Your task to perform on an android device: change keyboard looks Image 0: 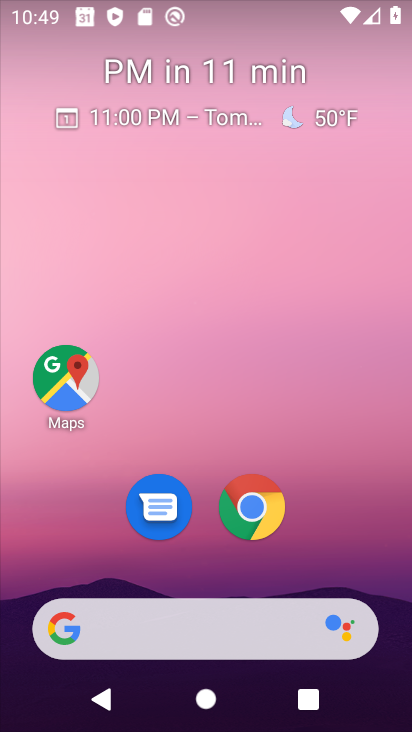
Step 0: drag from (295, 547) to (411, 81)
Your task to perform on an android device: change keyboard looks Image 1: 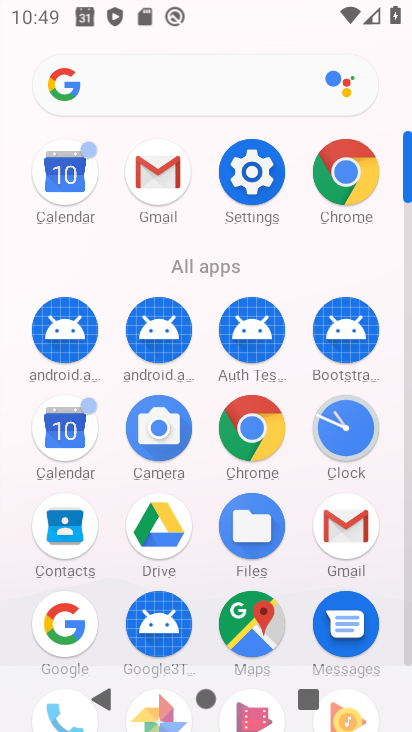
Step 1: click (262, 163)
Your task to perform on an android device: change keyboard looks Image 2: 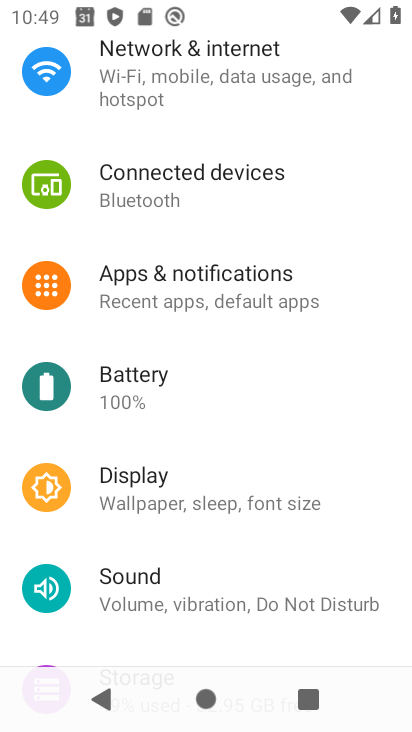
Step 2: drag from (208, 577) to (280, 161)
Your task to perform on an android device: change keyboard looks Image 3: 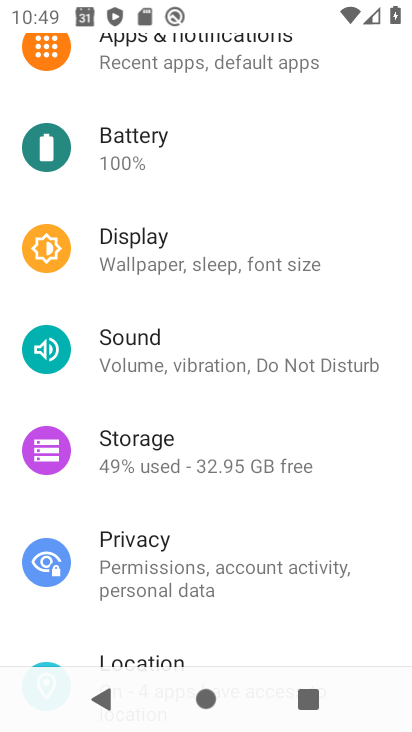
Step 3: drag from (217, 535) to (279, 135)
Your task to perform on an android device: change keyboard looks Image 4: 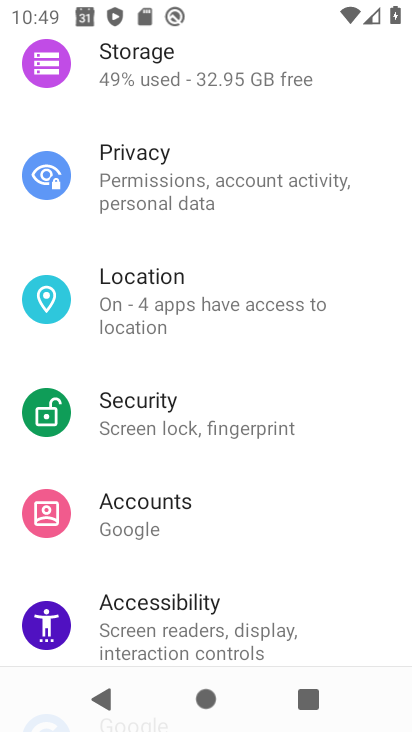
Step 4: drag from (218, 537) to (319, 174)
Your task to perform on an android device: change keyboard looks Image 5: 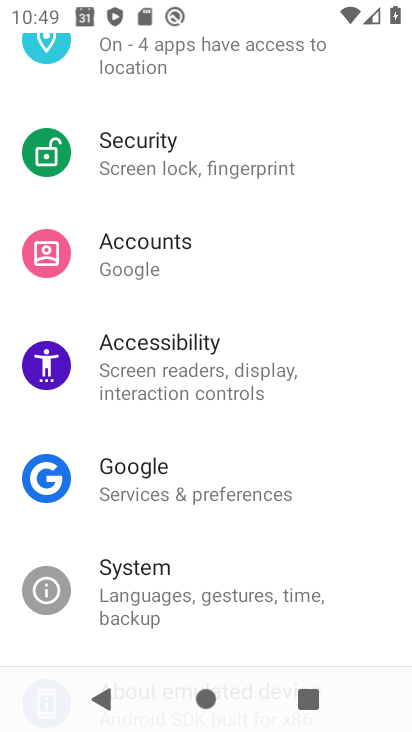
Step 5: click (202, 579)
Your task to perform on an android device: change keyboard looks Image 6: 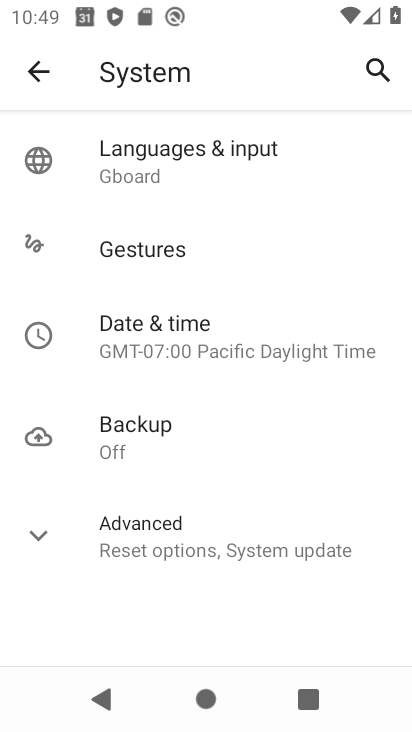
Step 6: click (227, 150)
Your task to perform on an android device: change keyboard looks Image 7: 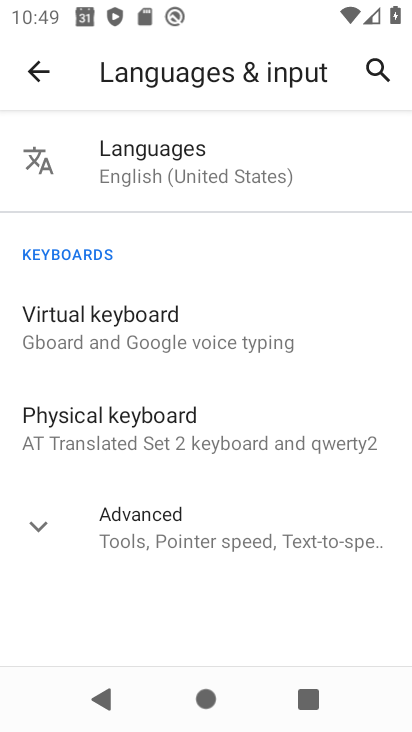
Step 7: click (192, 315)
Your task to perform on an android device: change keyboard looks Image 8: 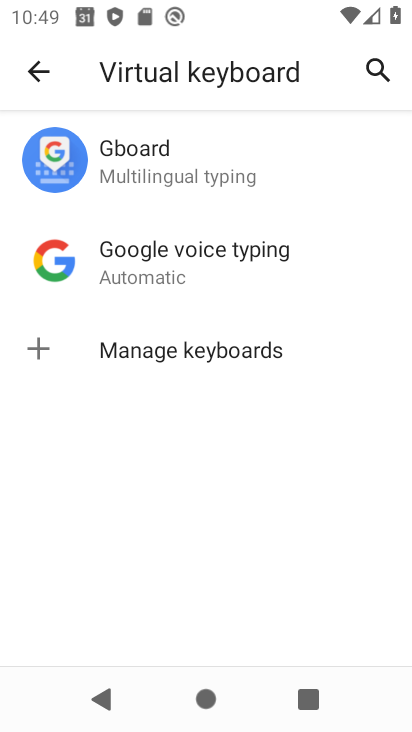
Step 8: click (180, 170)
Your task to perform on an android device: change keyboard looks Image 9: 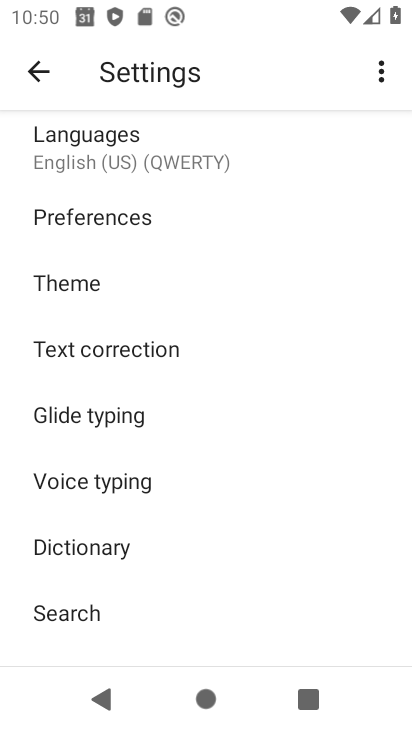
Step 9: click (108, 279)
Your task to perform on an android device: change keyboard looks Image 10: 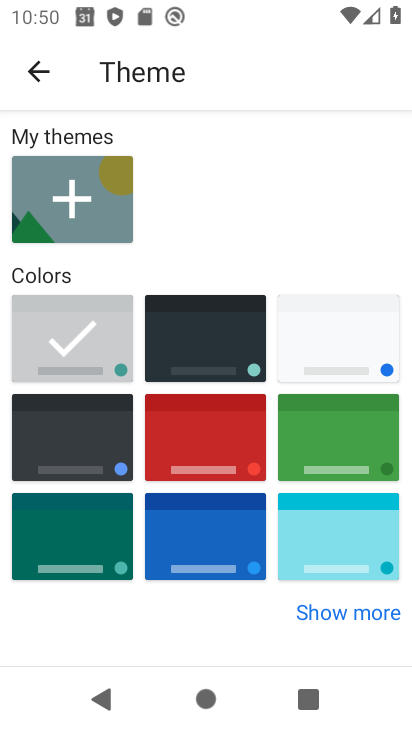
Step 10: click (252, 365)
Your task to perform on an android device: change keyboard looks Image 11: 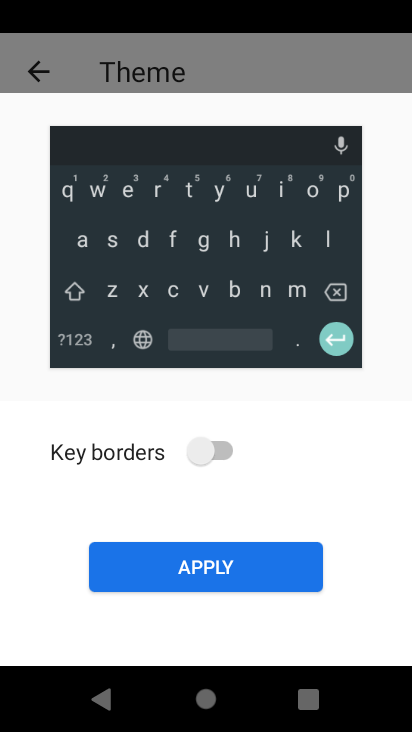
Step 11: click (195, 448)
Your task to perform on an android device: change keyboard looks Image 12: 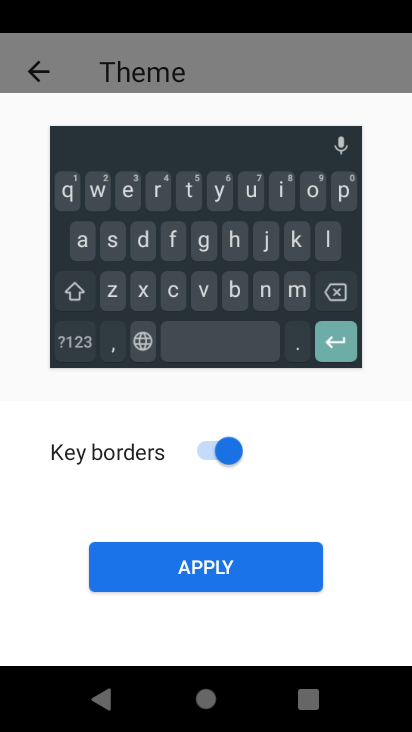
Step 12: click (175, 552)
Your task to perform on an android device: change keyboard looks Image 13: 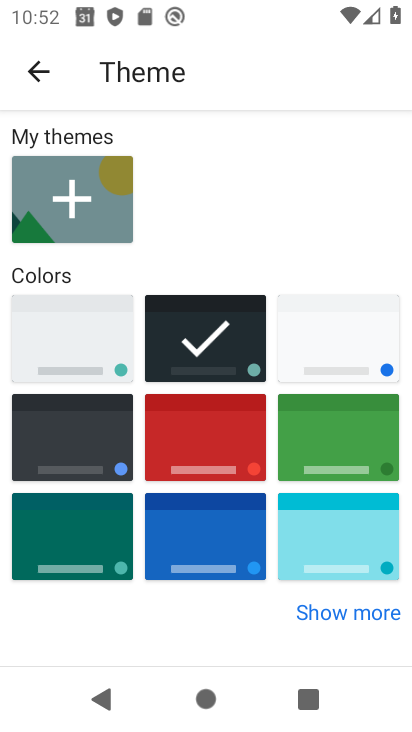
Step 13: task complete